Your task to perform on an android device: Go to display settings Image 0: 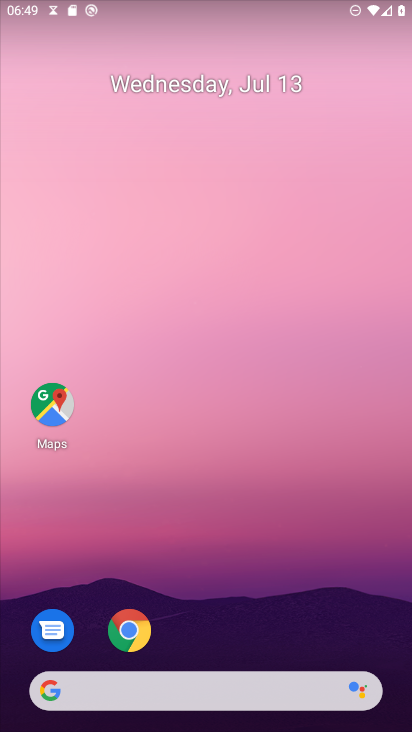
Step 0: drag from (231, 700) to (241, 3)
Your task to perform on an android device: Go to display settings Image 1: 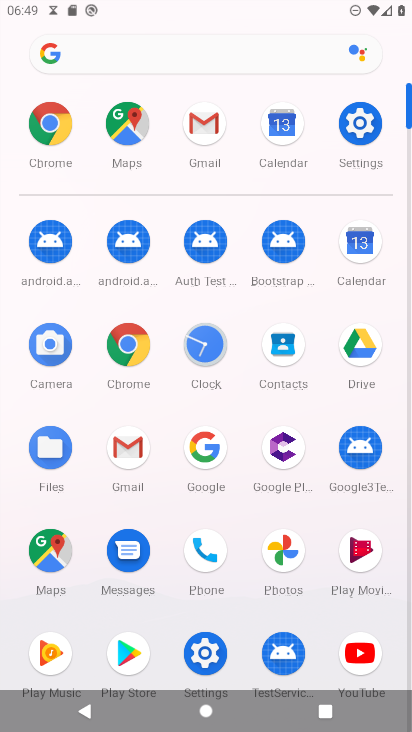
Step 1: click (366, 141)
Your task to perform on an android device: Go to display settings Image 2: 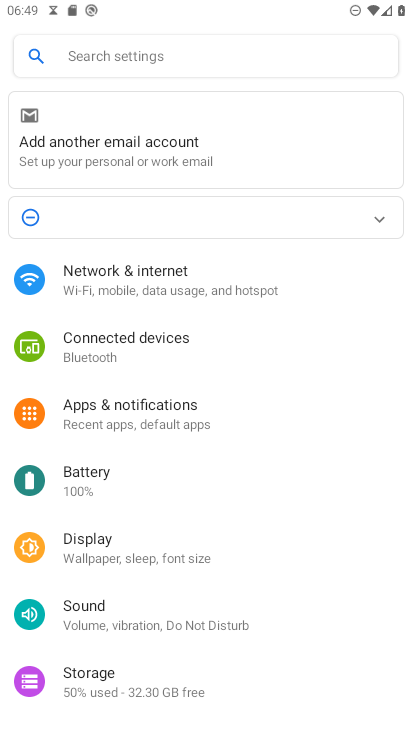
Step 2: click (134, 544)
Your task to perform on an android device: Go to display settings Image 3: 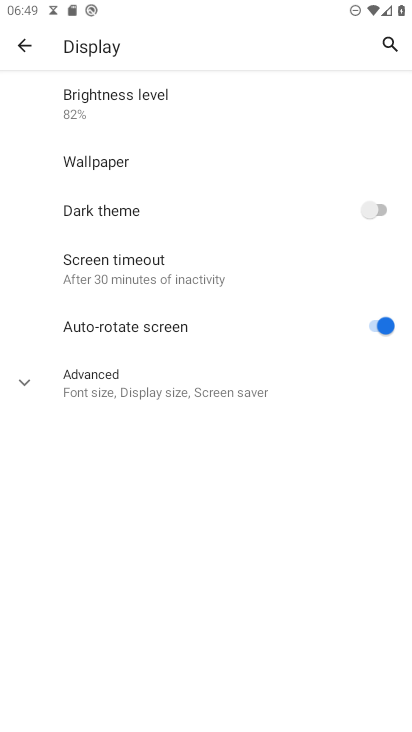
Step 3: task complete